Your task to perform on an android device: delete the emails in spam in the gmail app Image 0: 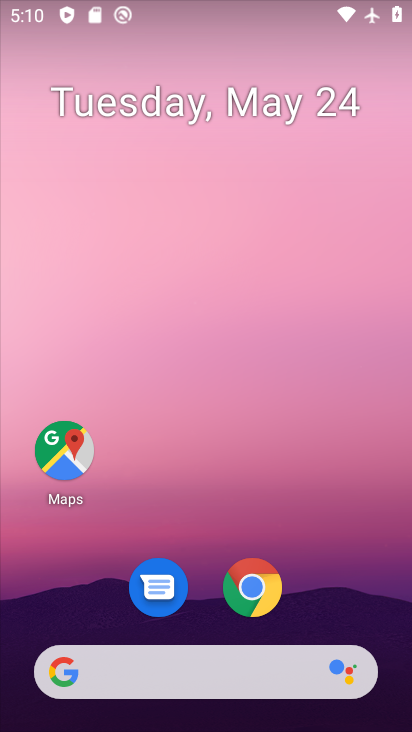
Step 0: drag from (335, 565) to (177, 12)
Your task to perform on an android device: delete the emails in spam in the gmail app Image 1: 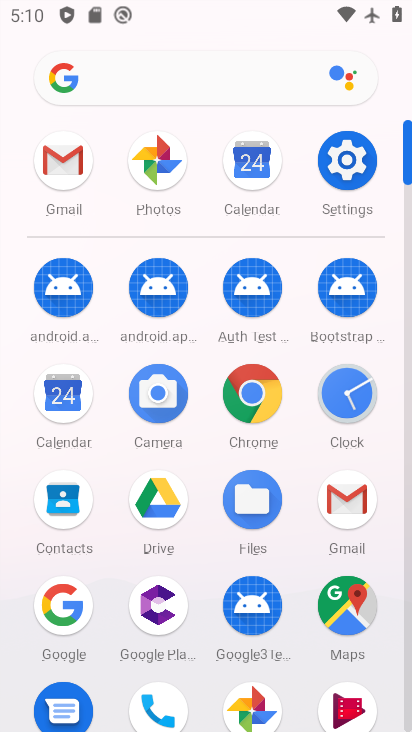
Step 1: click (349, 511)
Your task to perform on an android device: delete the emails in spam in the gmail app Image 2: 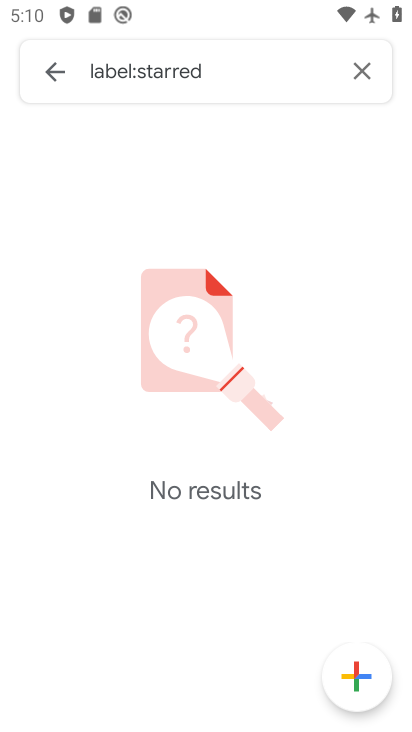
Step 2: click (362, 74)
Your task to perform on an android device: delete the emails in spam in the gmail app Image 3: 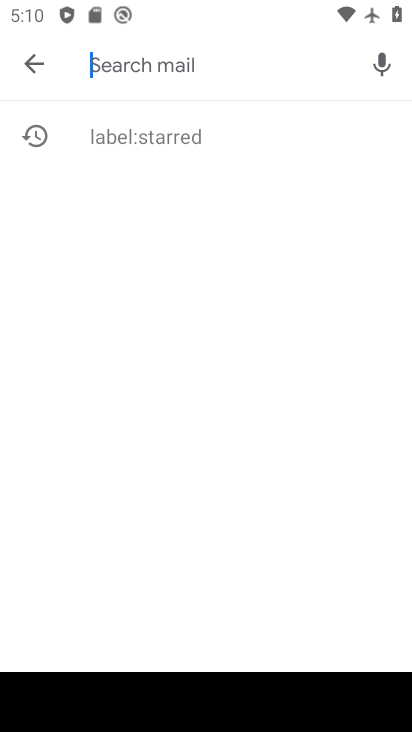
Step 3: click (30, 63)
Your task to perform on an android device: delete the emails in spam in the gmail app Image 4: 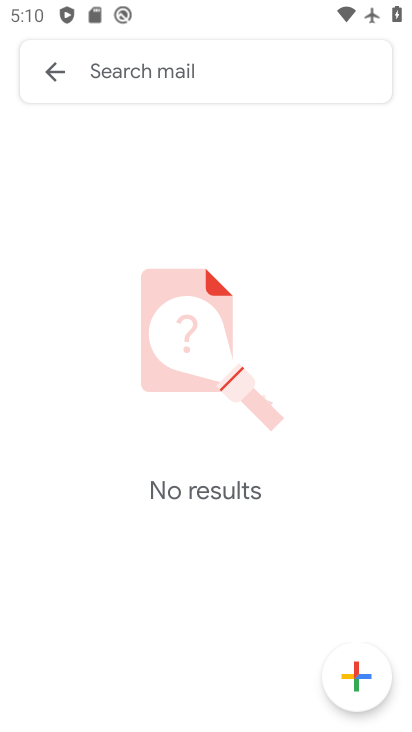
Step 4: click (58, 76)
Your task to perform on an android device: delete the emails in spam in the gmail app Image 5: 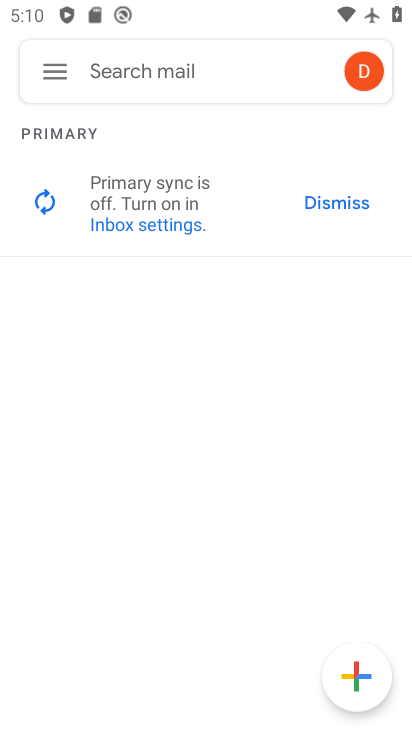
Step 5: click (54, 91)
Your task to perform on an android device: delete the emails in spam in the gmail app Image 6: 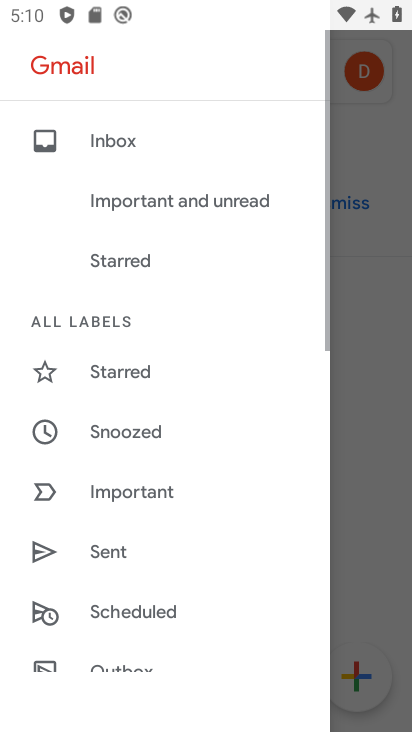
Step 6: drag from (186, 543) to (196, 32)
Your task to perform on an android device: delete the emails in spam in the gmail app Image 7: 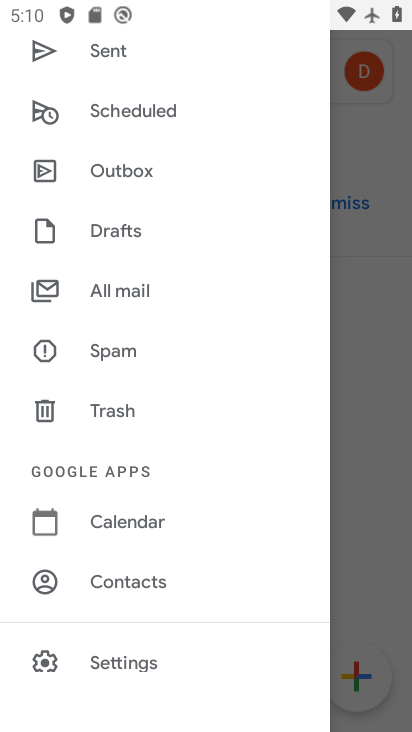
Step 7: click (156, 352)
Your task to perform on an android device: delete the emails in spam in the gmail app Image 8: 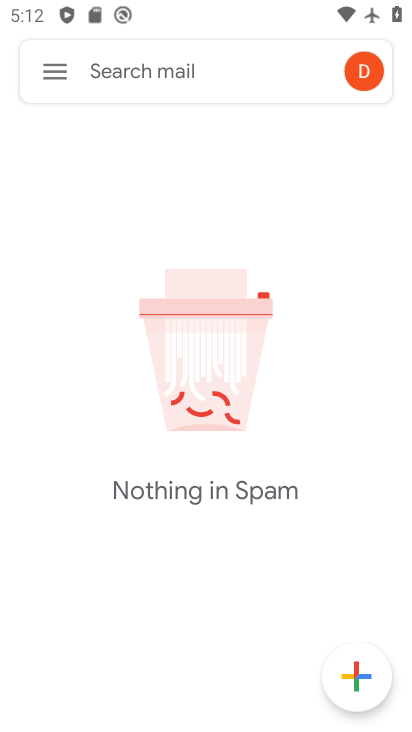
Step 8: task complete